Your task to perform on an android device: toggle javascript in the chrome app Image 0: 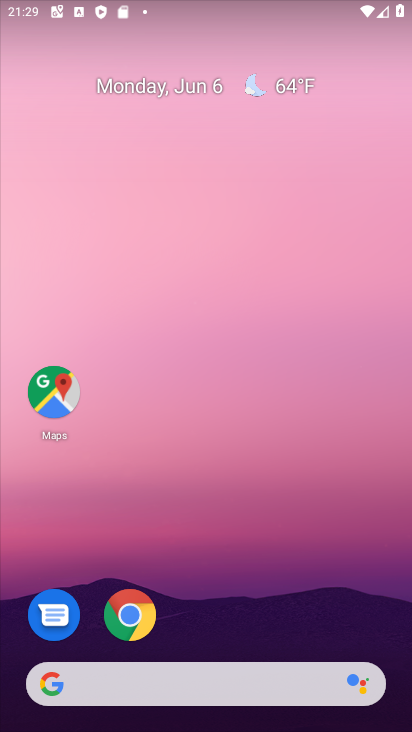
Step 0: click (117, 619)
Your task to perform on an android device: toggle javascript in the chrome app Image 1: 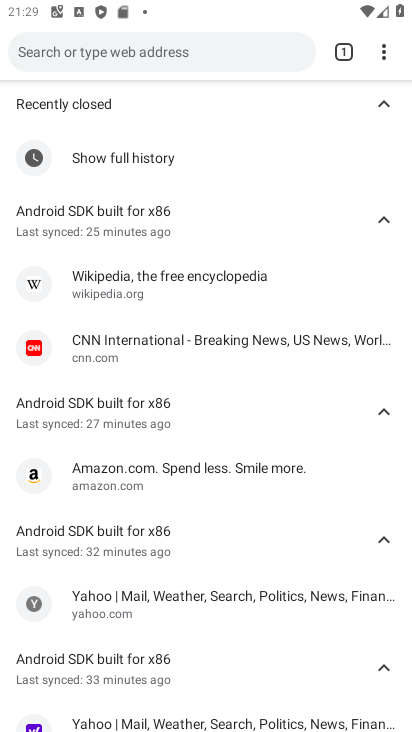
Step 1: click (385, 43)
Your task to perform on an android device: toggle javascript in the chrome app Image 2: 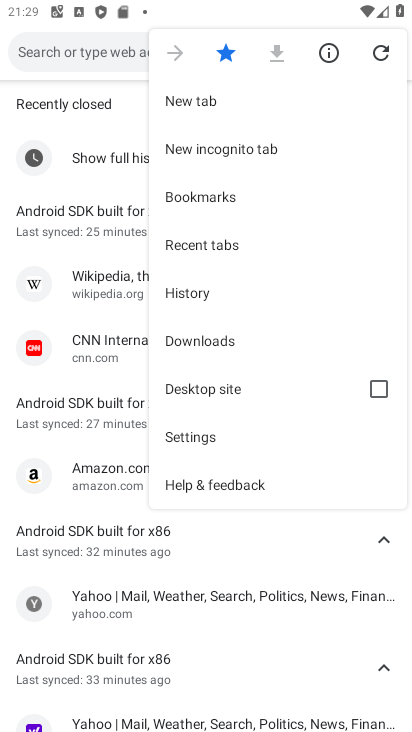
Step 2: click (171, 426)
Your task to perform on an android device: toggle javascript in the chrome app Image 3: 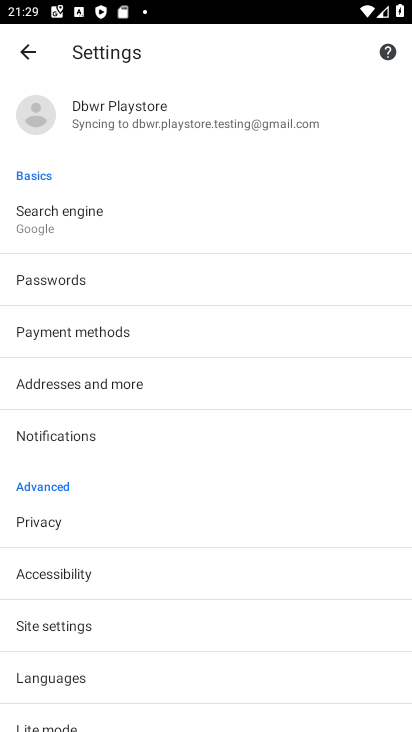
Step 3: drag from (212, 660) to (209, 292)
Your task to perform on an android device: toggle javascript in the chrome app Image 4: 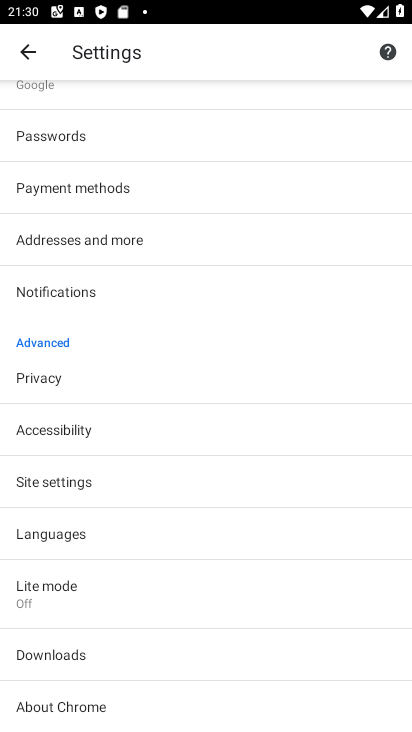
Step 4: click (43, 485)
Your task to perform on an android device: toggle javascript in the chrome app Image 5: 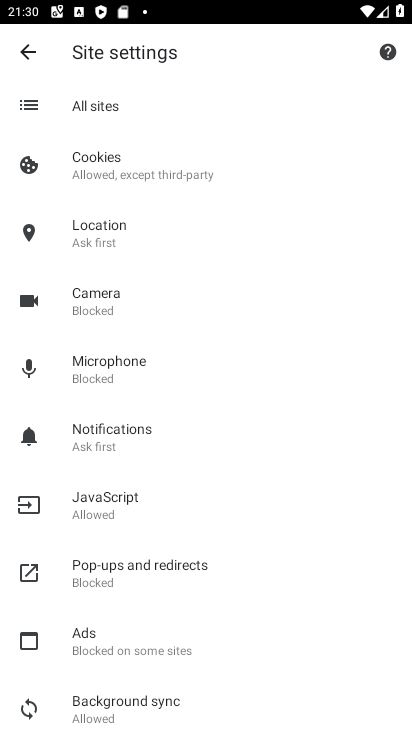
Step 5: click (93, 496)
Your task to perform on an android device: toggle javascript in the chrome app Image 6: 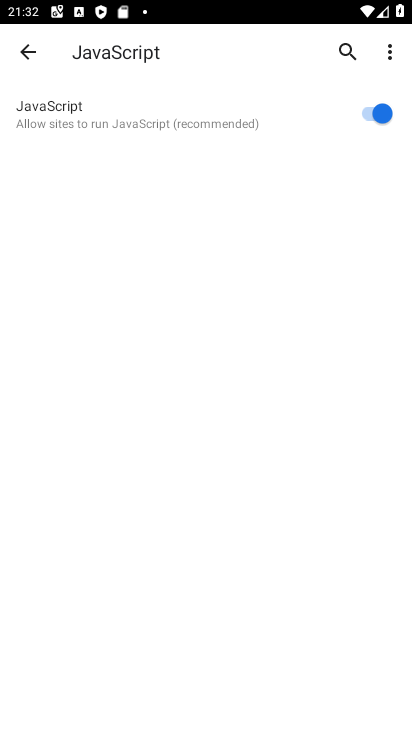
Step 6: click (371, 109)
Your task to perform on an android device: toggle javascript in the chrome app Image 7: 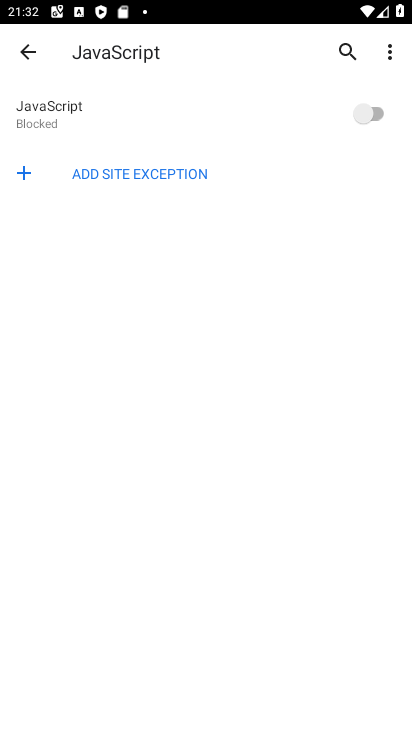
Step 7: task complete